Your task to perform on an android device: Search for "logitech g pro" on target.com, select the first entry, add it to the cart, then select checkout. Image 0: 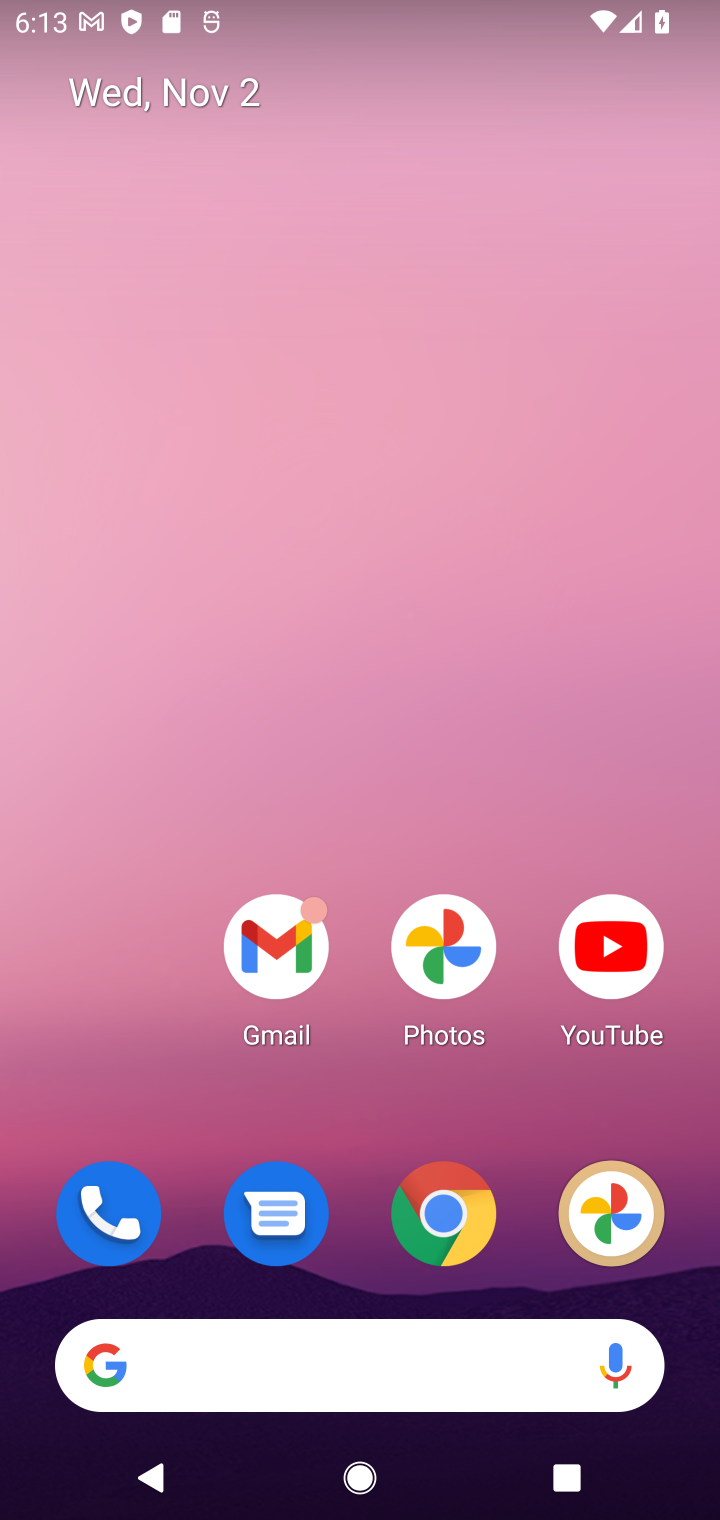
Step 0: click (445, 1233)
Your task to perform on an android device: Search for "logitech g pro" on target.com, select the first entry, add it to the cart, then select checkout. Image 1: 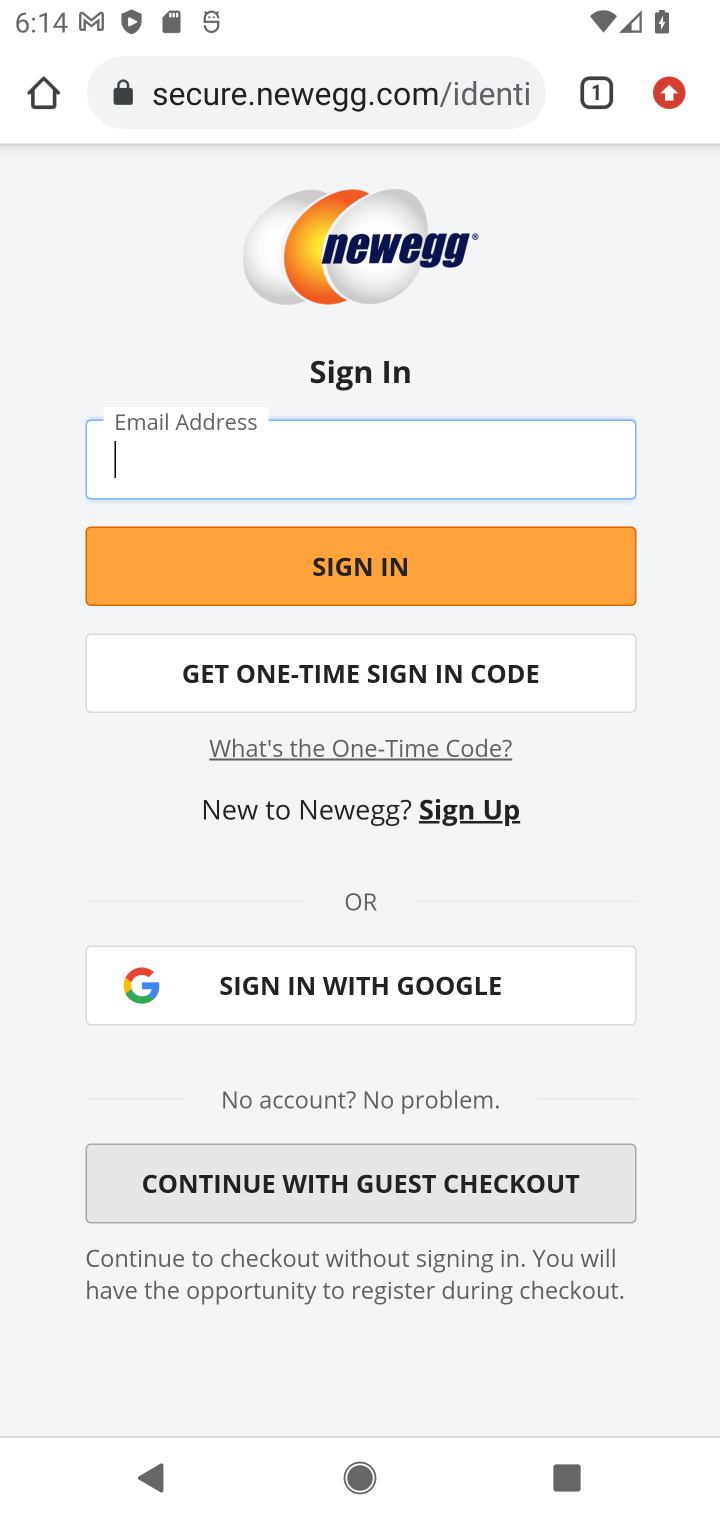
Step 1: click (369, 50)
Your task to perform on an android device: Search for "logitech g pro" on target.com, select the first entry, add it to the cart, then select checkout. Image 2: 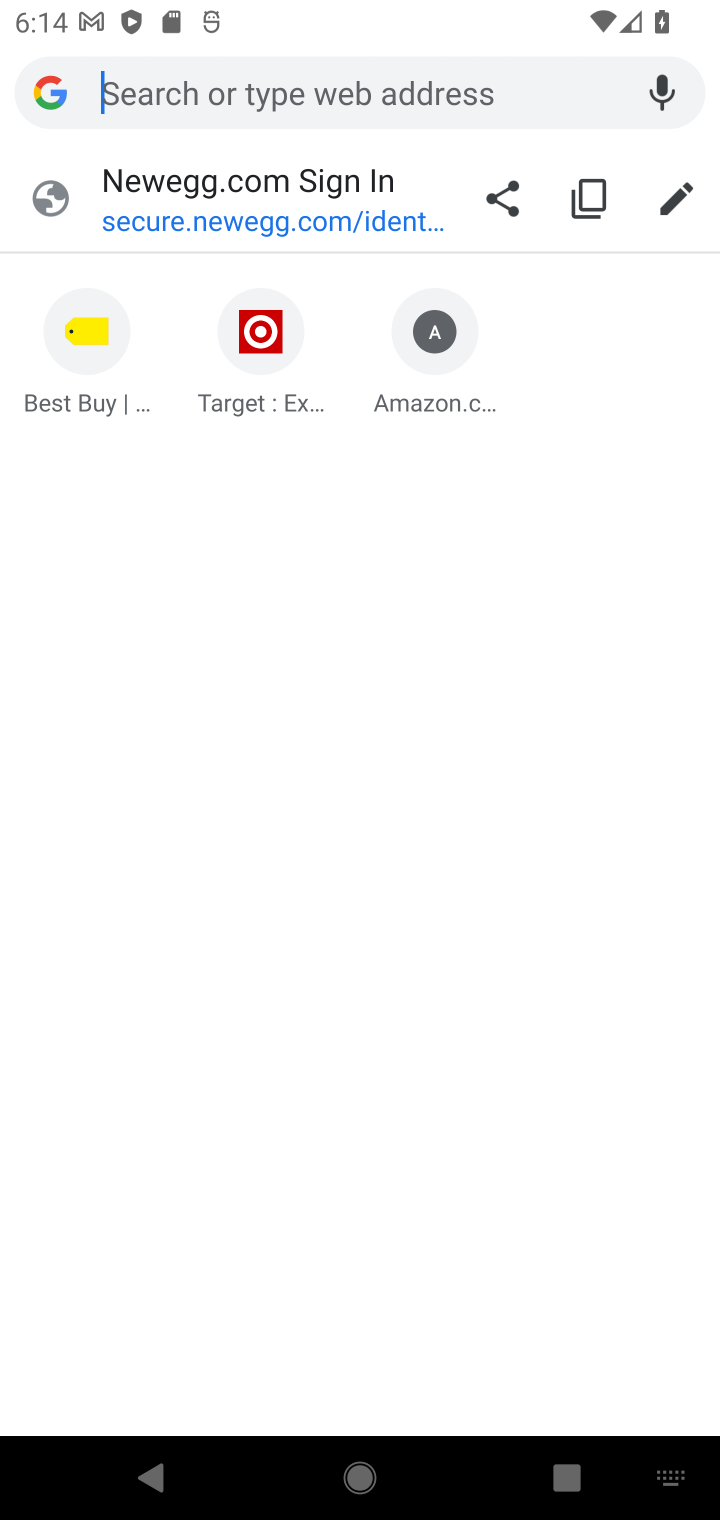
Step 2: type "target.com"
Your task to perform on an android device: Search for "logitech g pro" on target.com, select the first entry, add it to the cart, then select checkout. Image 3: 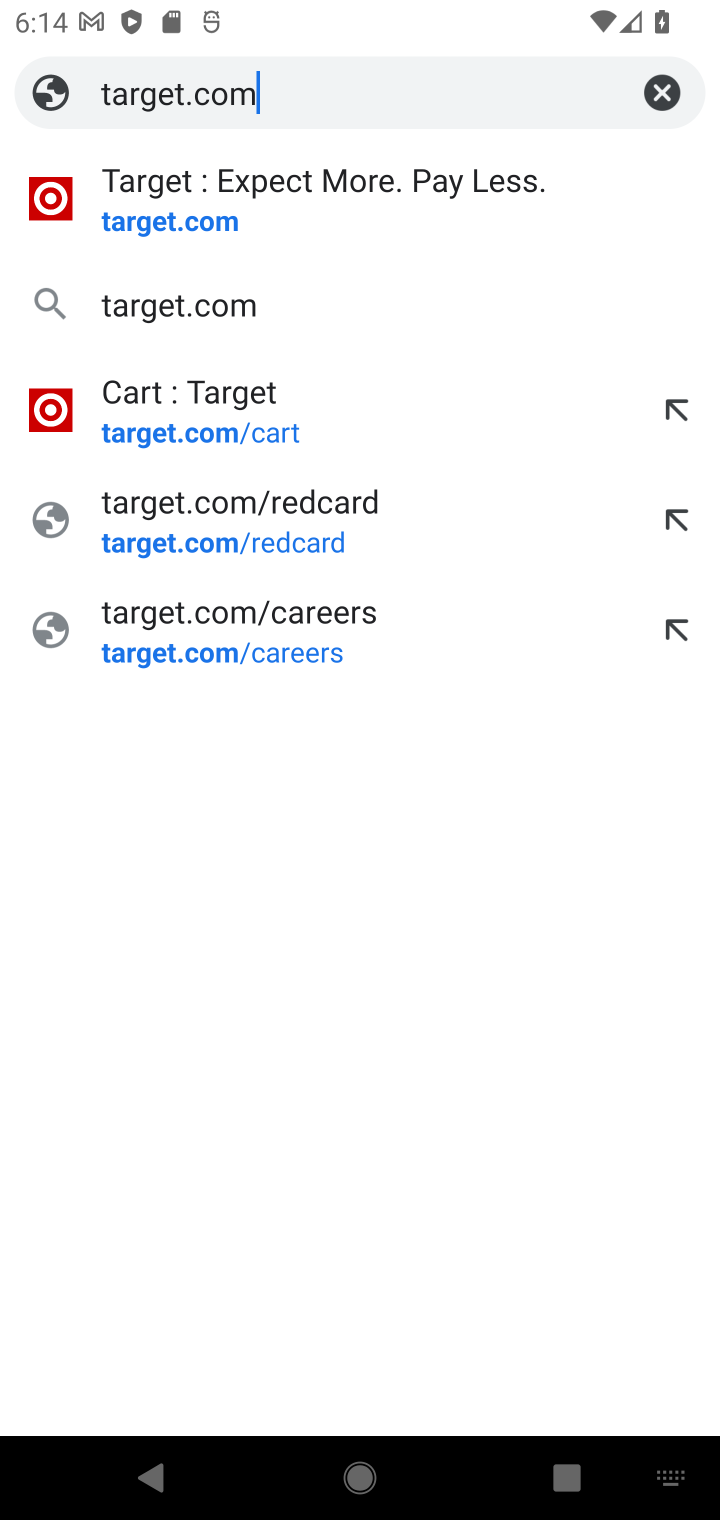
Step 3: click (178, 184)
Your task to perform on an android device: Search for "logitech g pro" on target.com, select the first entry, add it to the cart, then select checkout. Image 4: 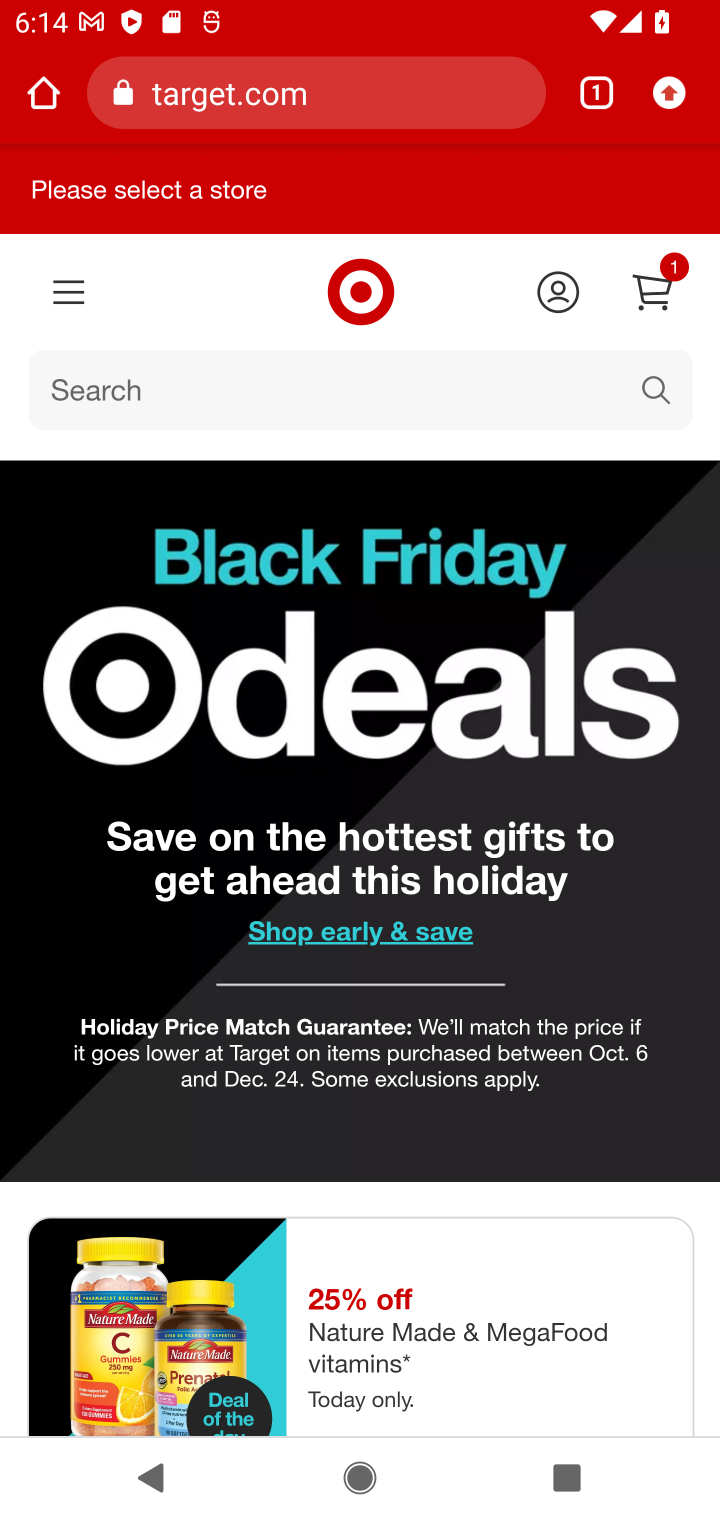
Step 4: click (116, 387)
Your task to perform on an android device: Search for "logitech g pro" on target.com, select the first entry, add it to the cart, then select checkout. Image 5: 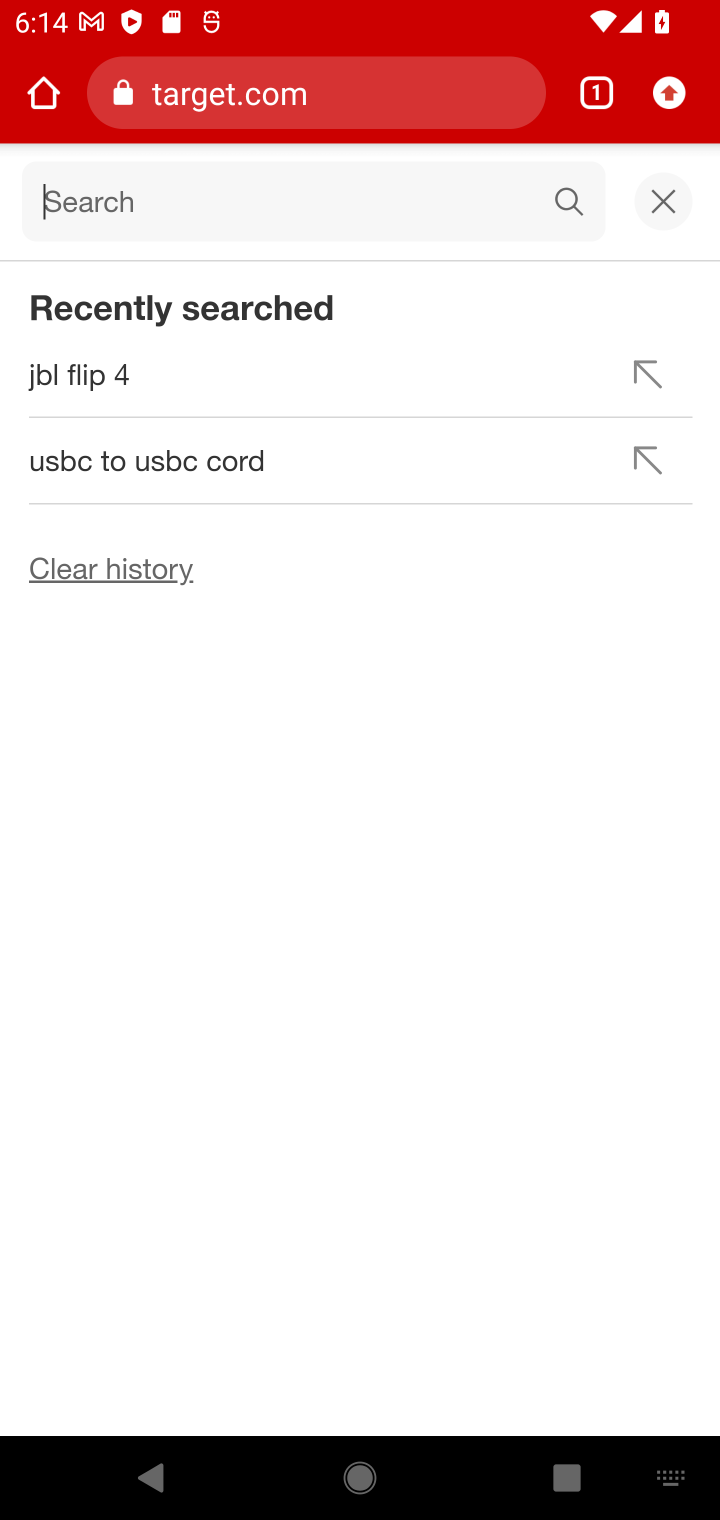
Step 5: type "logitech g pro"
Your task to perform on an android device: Search for "logitech g pro" on target.com, select the first entry, add it to the cart, then select checkout. Image 6: 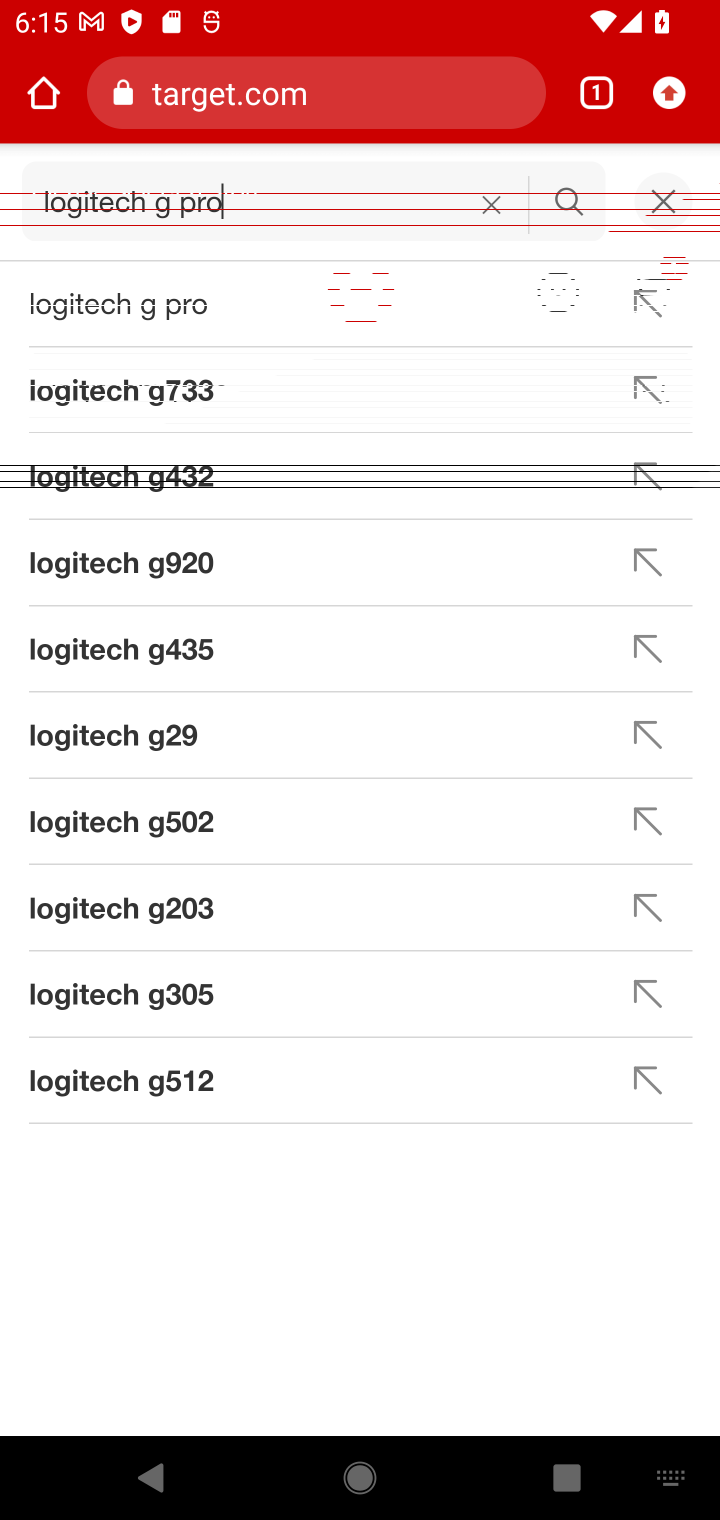
Step 6: click (131, 302)
Your task to perform on an android device: Search for "logitech g pro" on target.com, select the first entry, add it to the cart, then select checkout. Image 7: 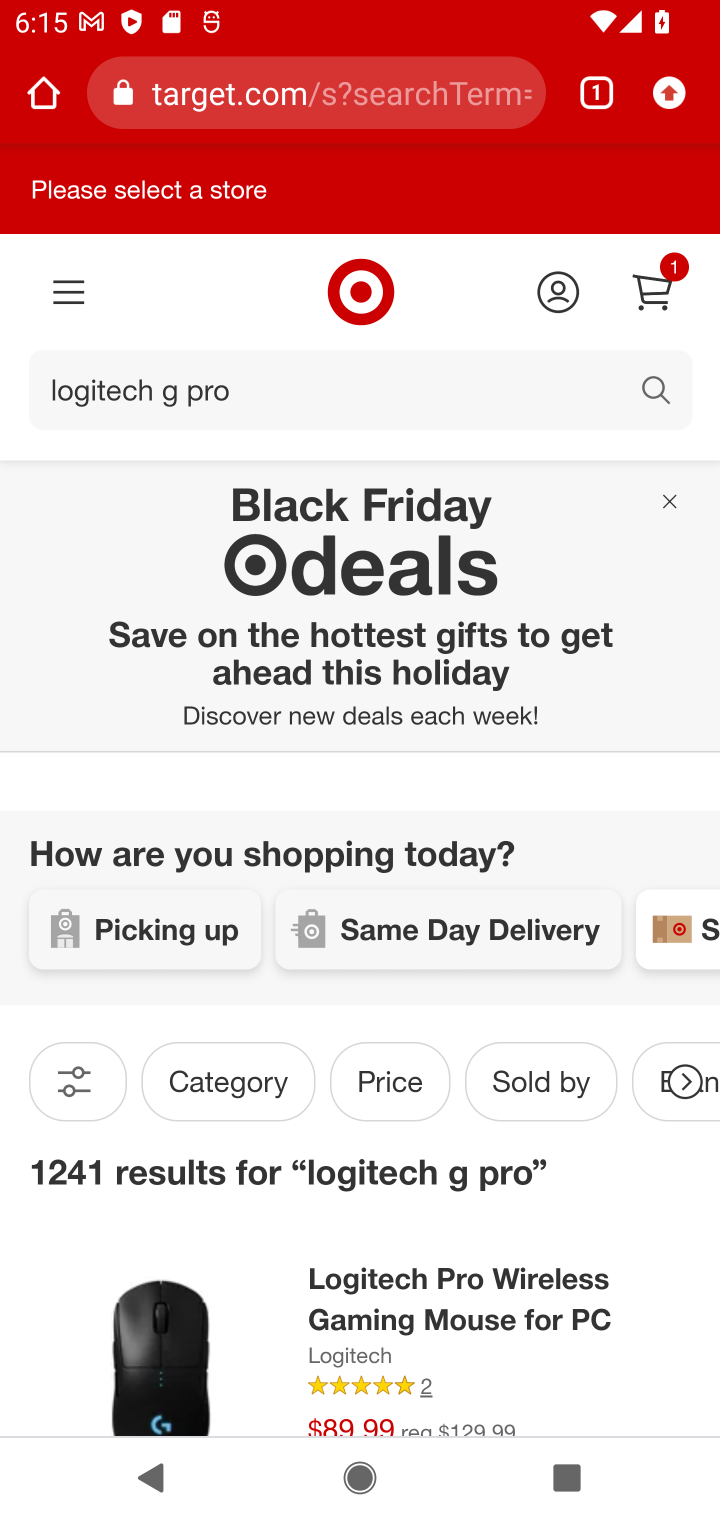
Step 7: drag from (423, 916) to (433, 574)
Your task to perform on an android device: Search for "logitech g pro" on target.com, select the first entry, add it to the cart, then select checkout. Image 8: 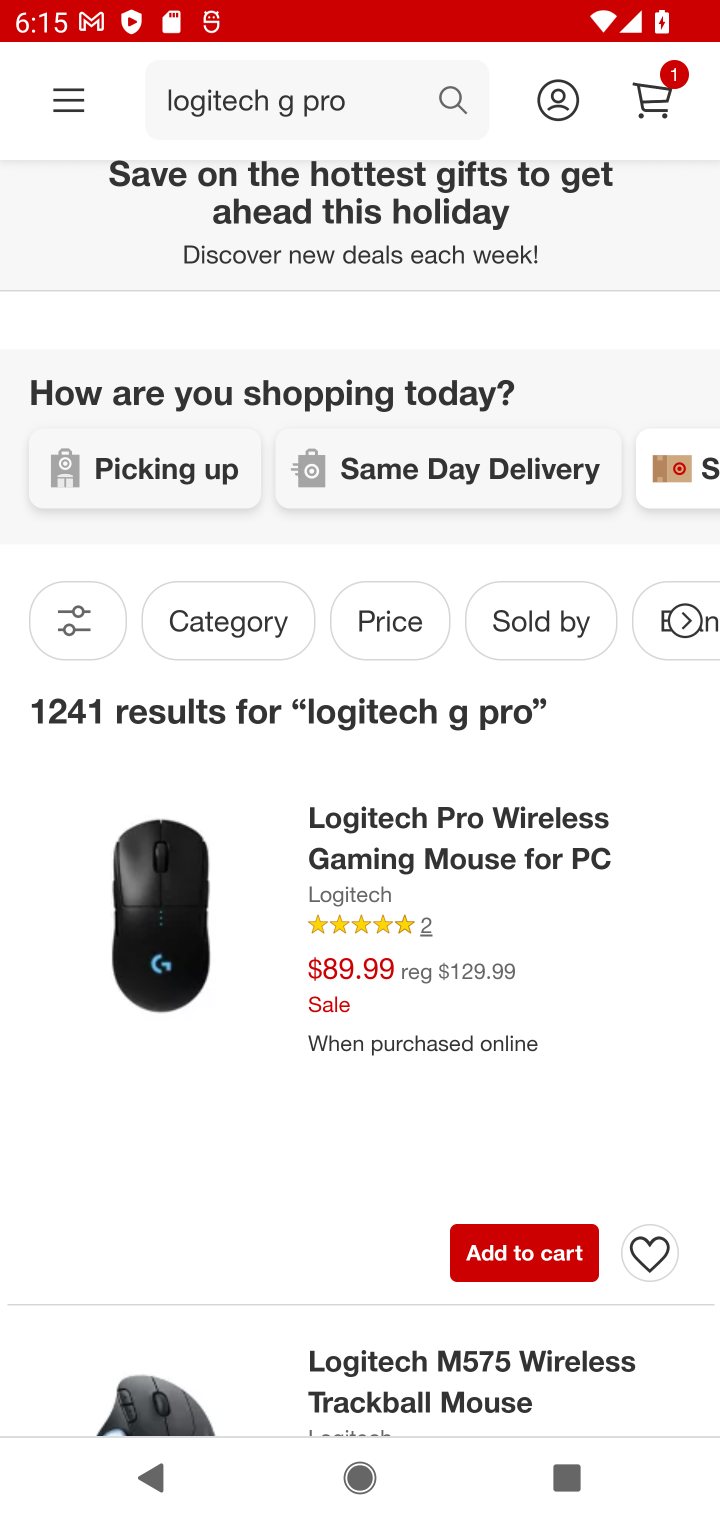
Step 8: drag from (330, 1283) to (361, 624)
Your task to perform on an android device: Search for "logitech g pro" on target.com, select the first entry, add it to the cart, then select checkout. Image 9: 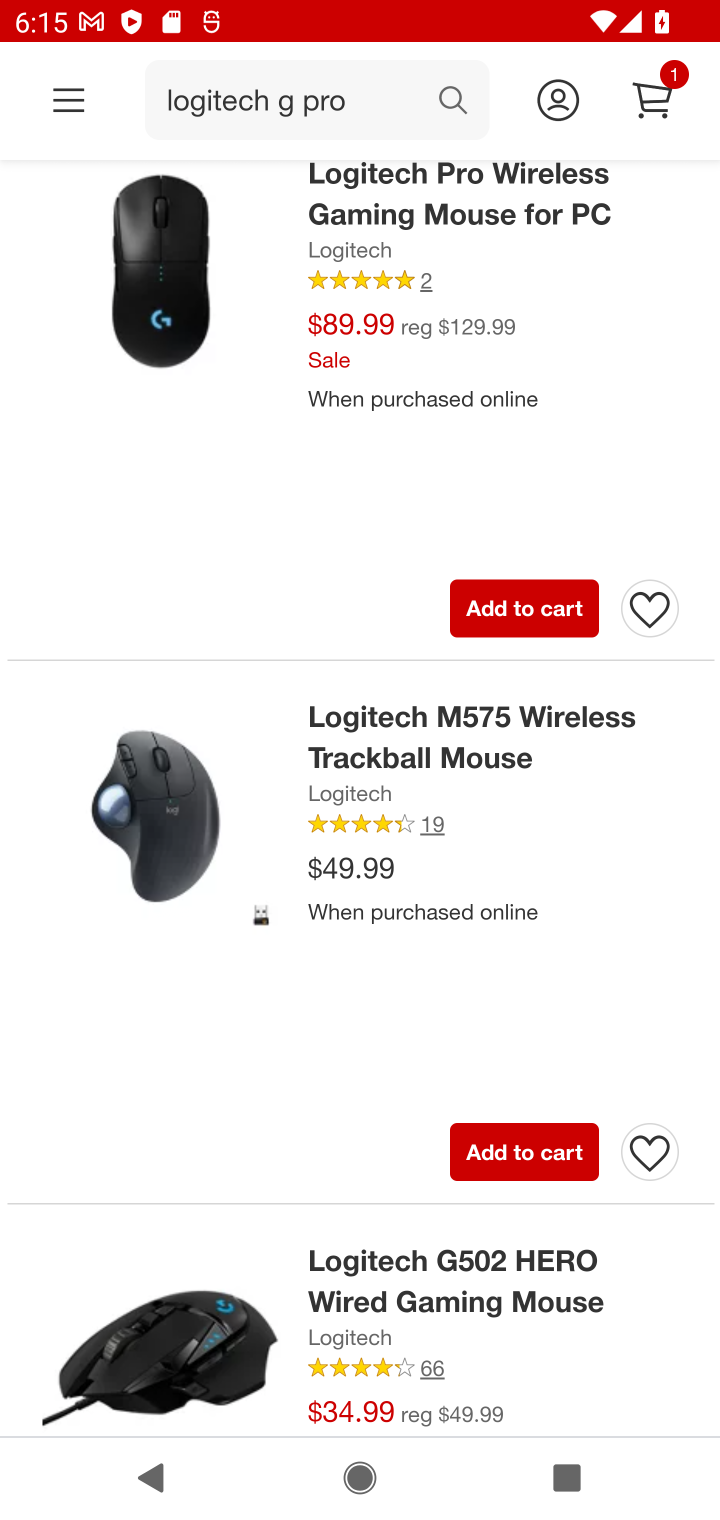
Step 9: drag from (320, 1154) to (319, 436)
Your task to perform on an android device: Search for "logitech g pro" on target.com, select the first entry, add it to the cart, then select checkout. Image 10: 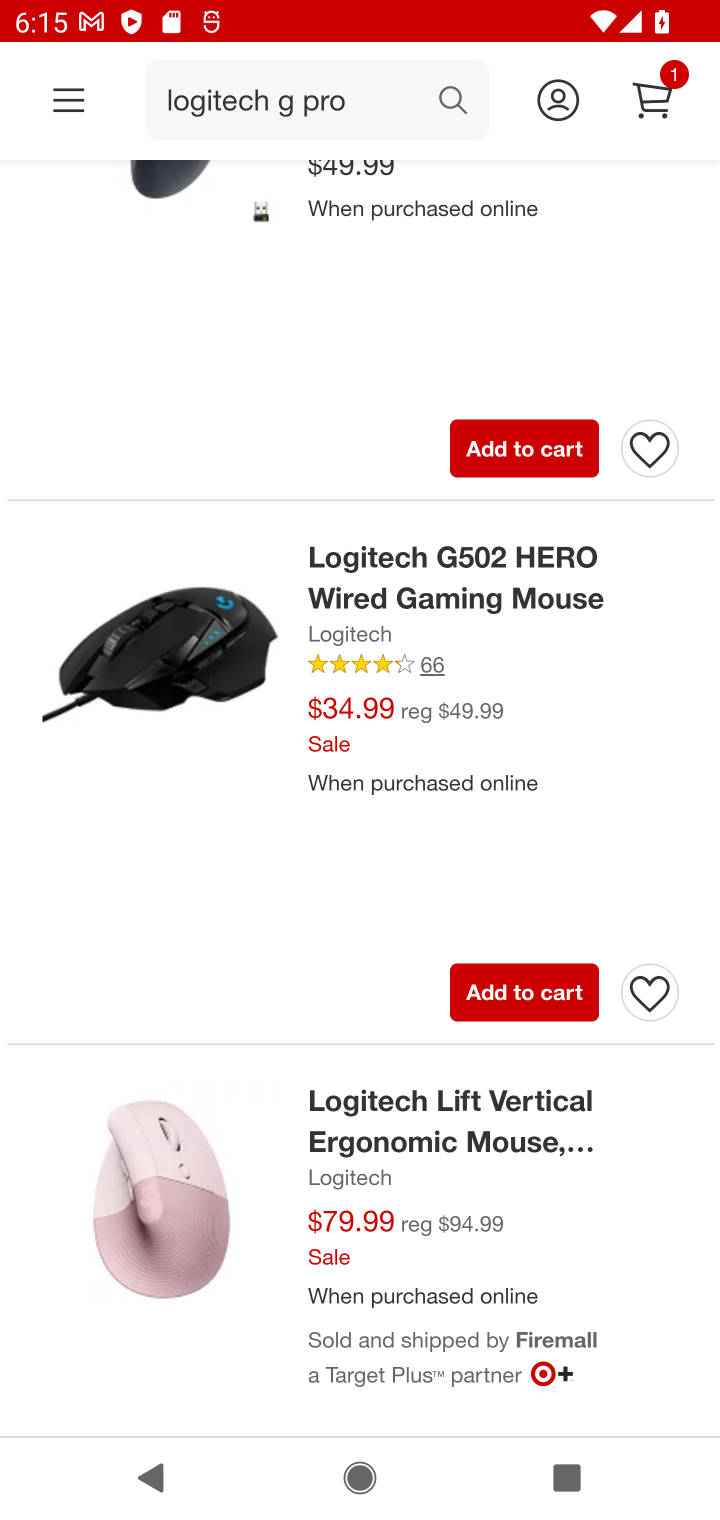
Step 10: drag from (276, 1269) to (344, 594)
Your task to perform on an android device: Search for "logitech g pro" on target.com, select the first entry, add it to the cart, then select checkout. Image 11: 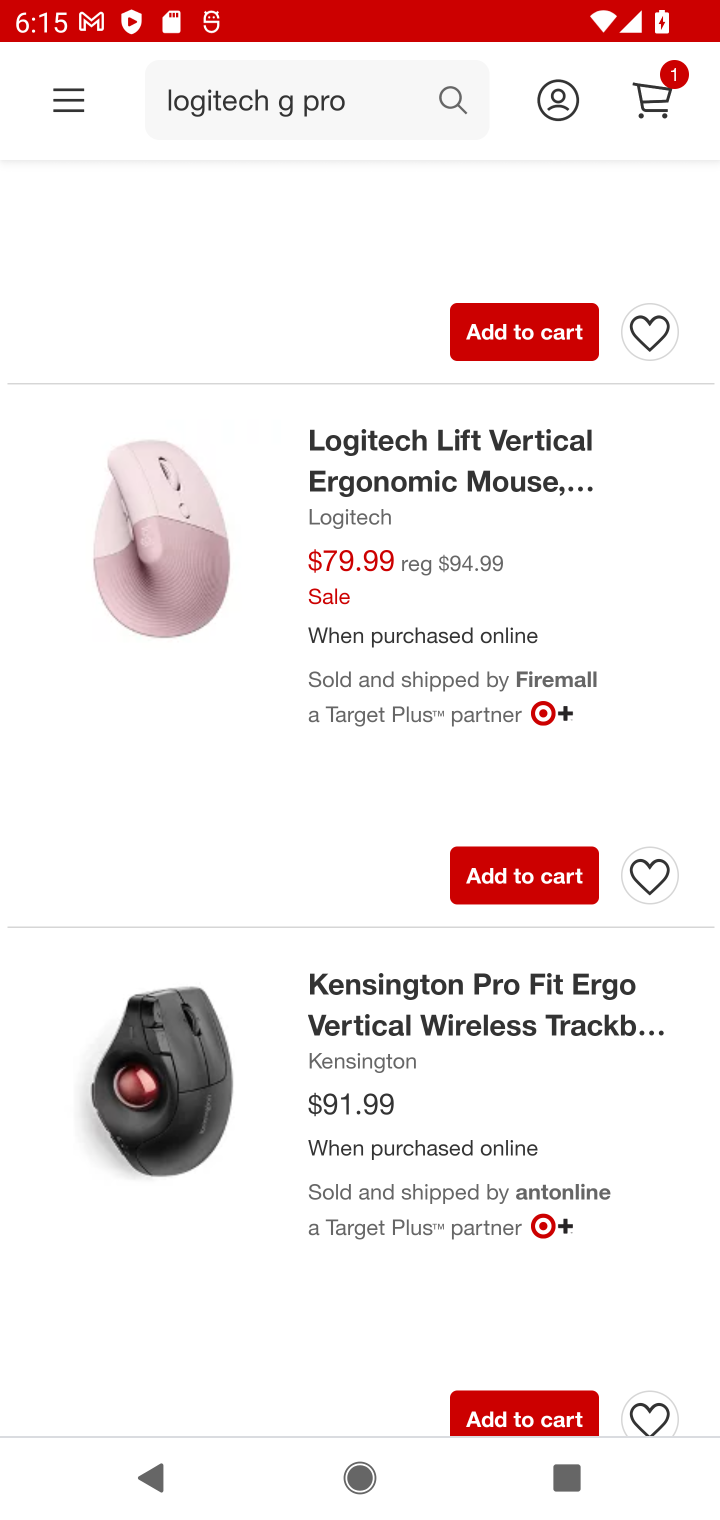
Step 11: drag from (282, 1097) to (393, 257)
Your task to perform on an android device: Search for "logitech g pro" on target.com, select the first entry, add it to the cart, then select checkout. Image 12: 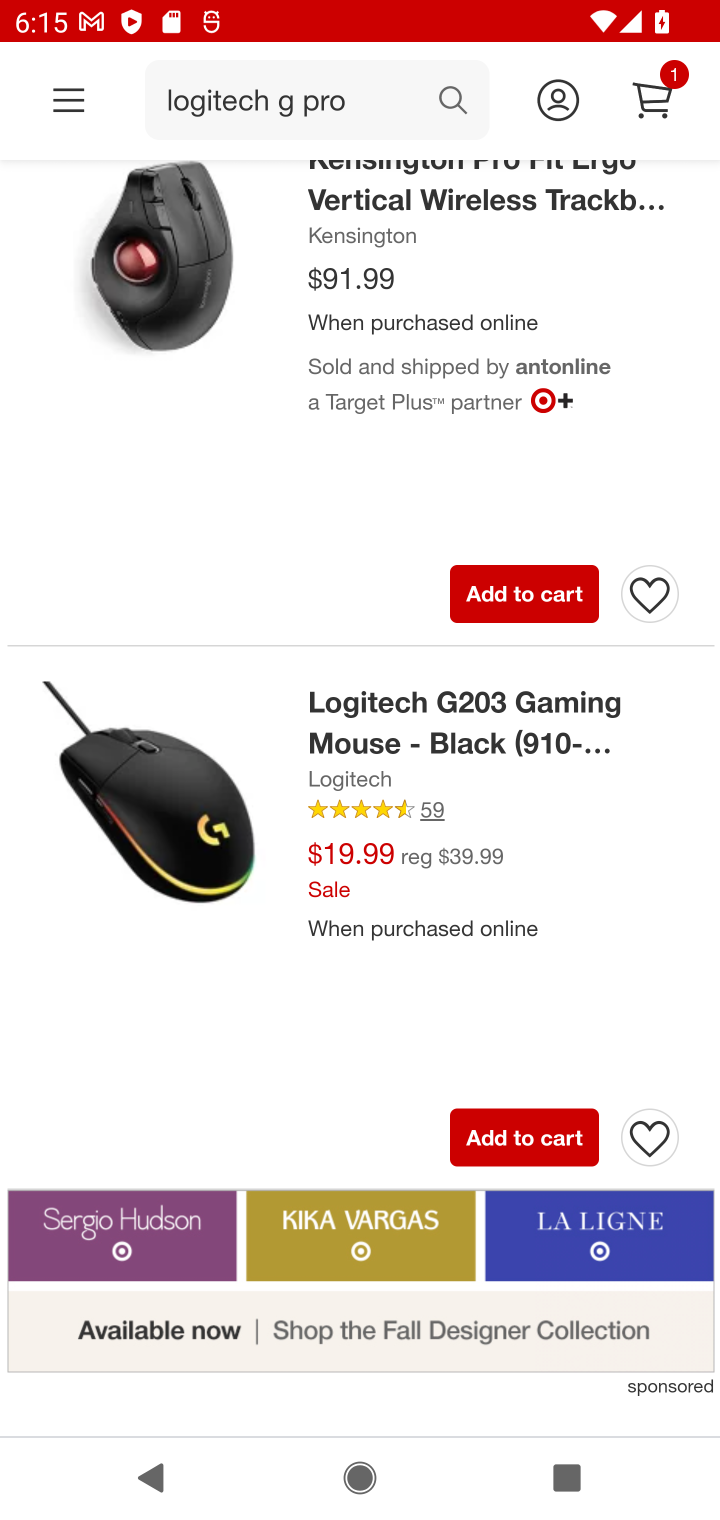
Step 12: drag from (298, 651) to (283, 1117)
Your task to perform on an android device: Search for "logitech g pro" on target.com, select the first entry, add it to the cart, then select checkout. Image 13: 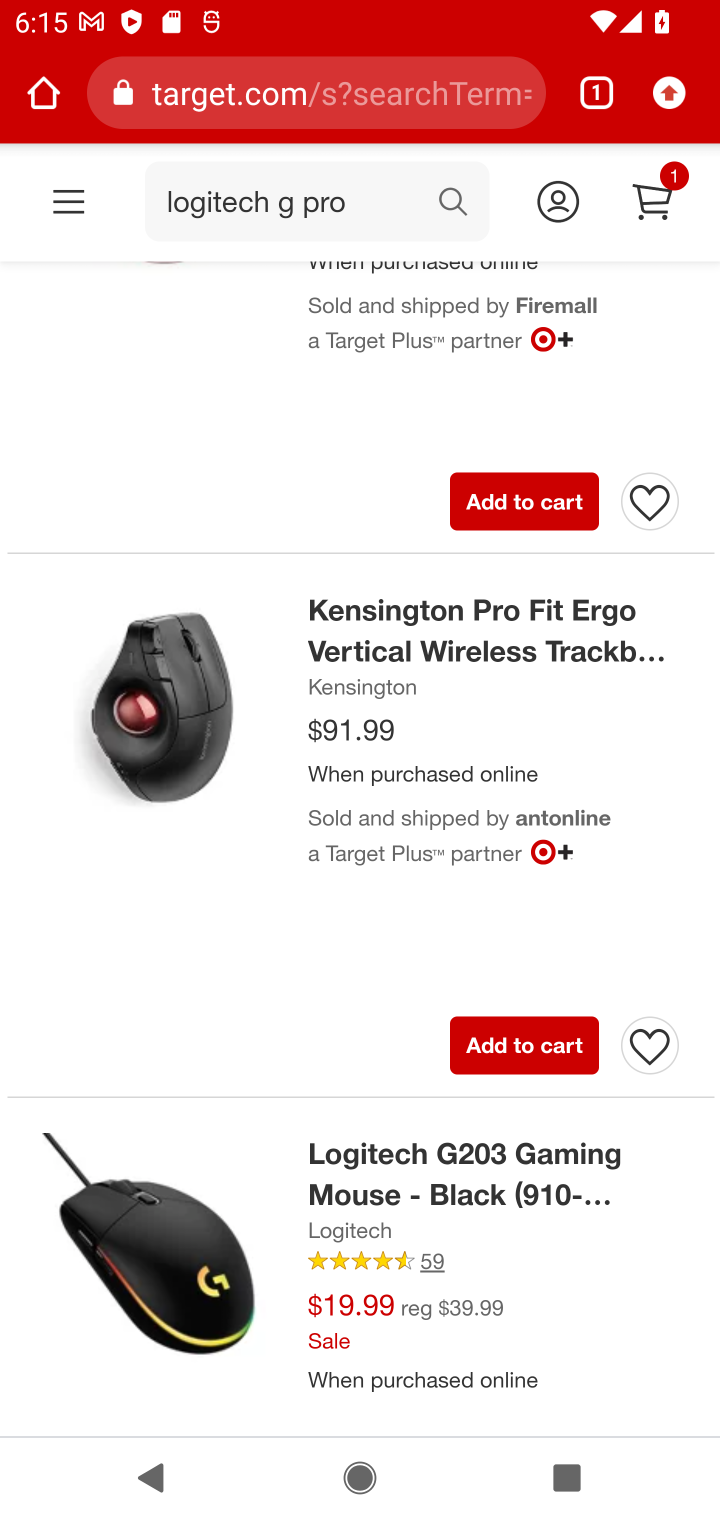
Step 13: drag from (285, 511) to (303, 1148)
Your task to perform on an android device: Search for "logitech g pro" on target.com, select the first entry, add it to the cart, then select checkout. Image 14: 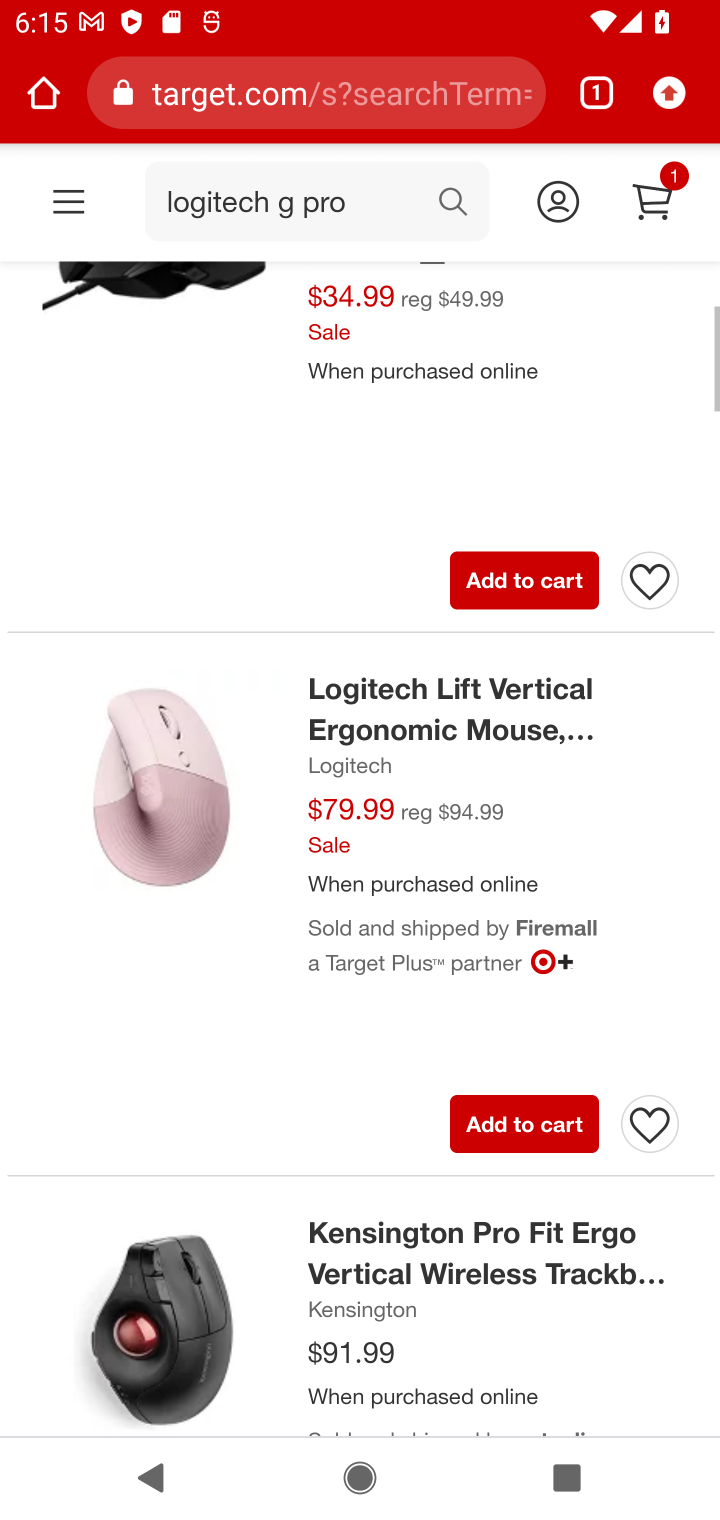
Step 14: drag from (303, 742) to (306, 1007)
Your task to perform on an android device: Search for "logitech g pro" on target.com, select the first entry, add it to the cart, then select checkout. Image 15: 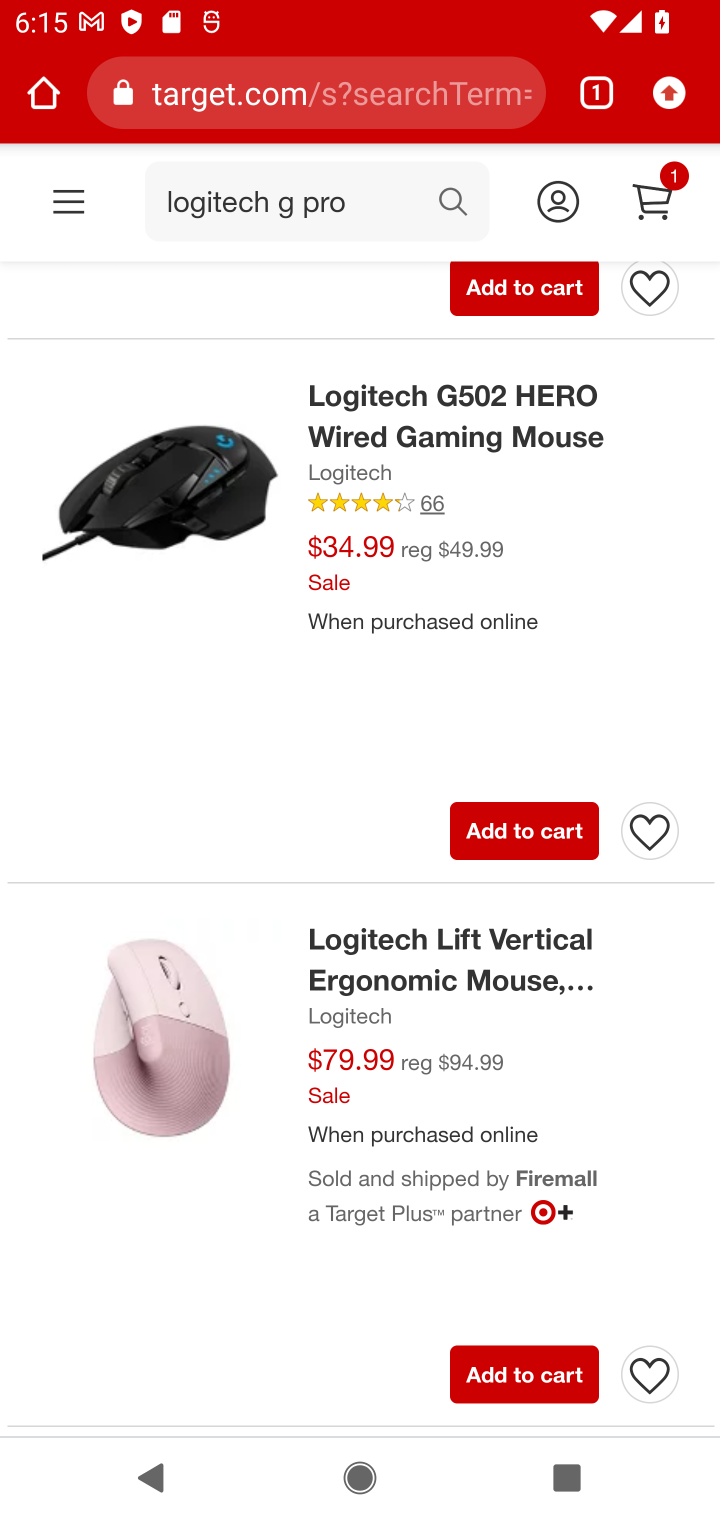
Step 15: drag from (273, 466) to (282, 1012)
Your task to perform on an android device: Search for "logitech g pro" on target.com, select the first entry, add it to the cart, then select checkout. Image 16: 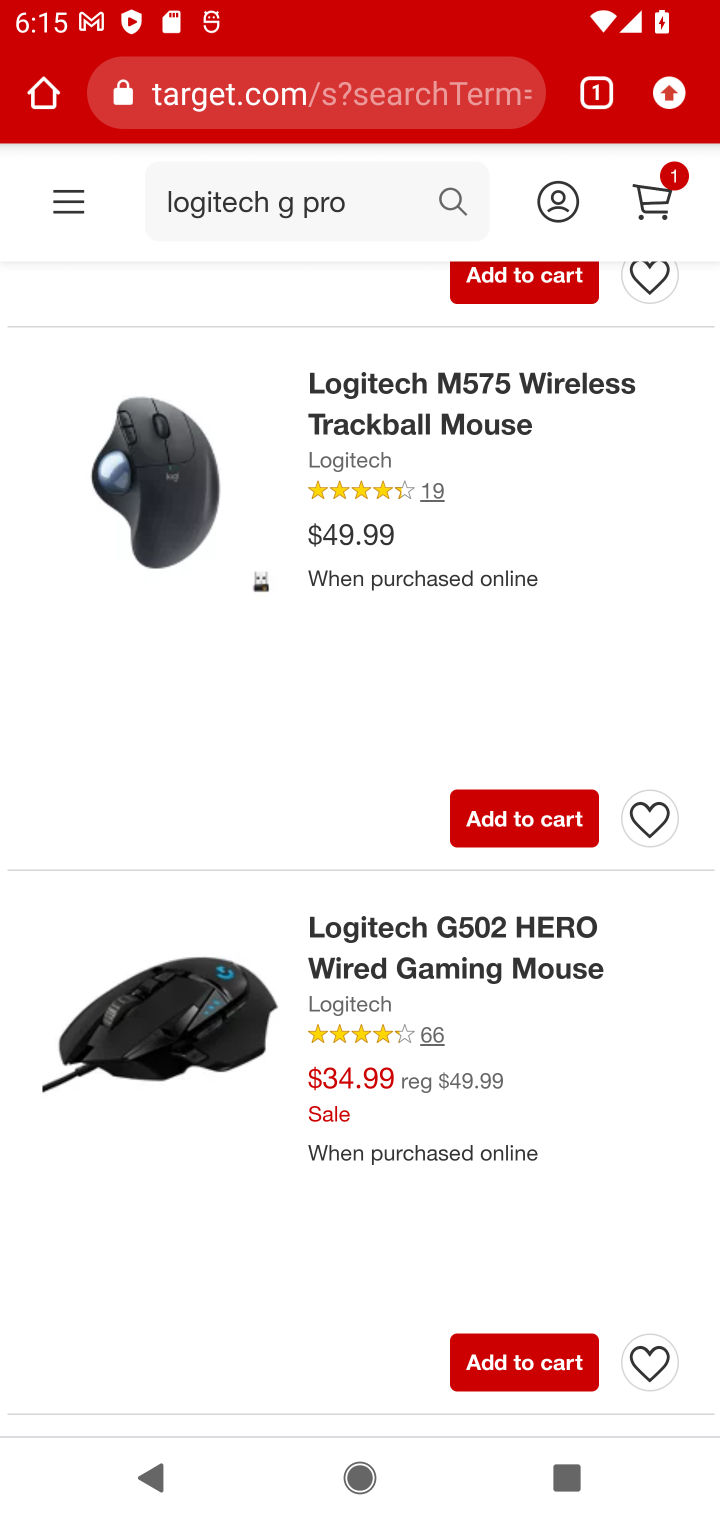
Step 16: drag from (269, 440) to (287, 995)
Your task to perform on an android device: Search for "logitech g pro" on target.com, select the first entry, add it to the cart, then select checkout. Image 17: 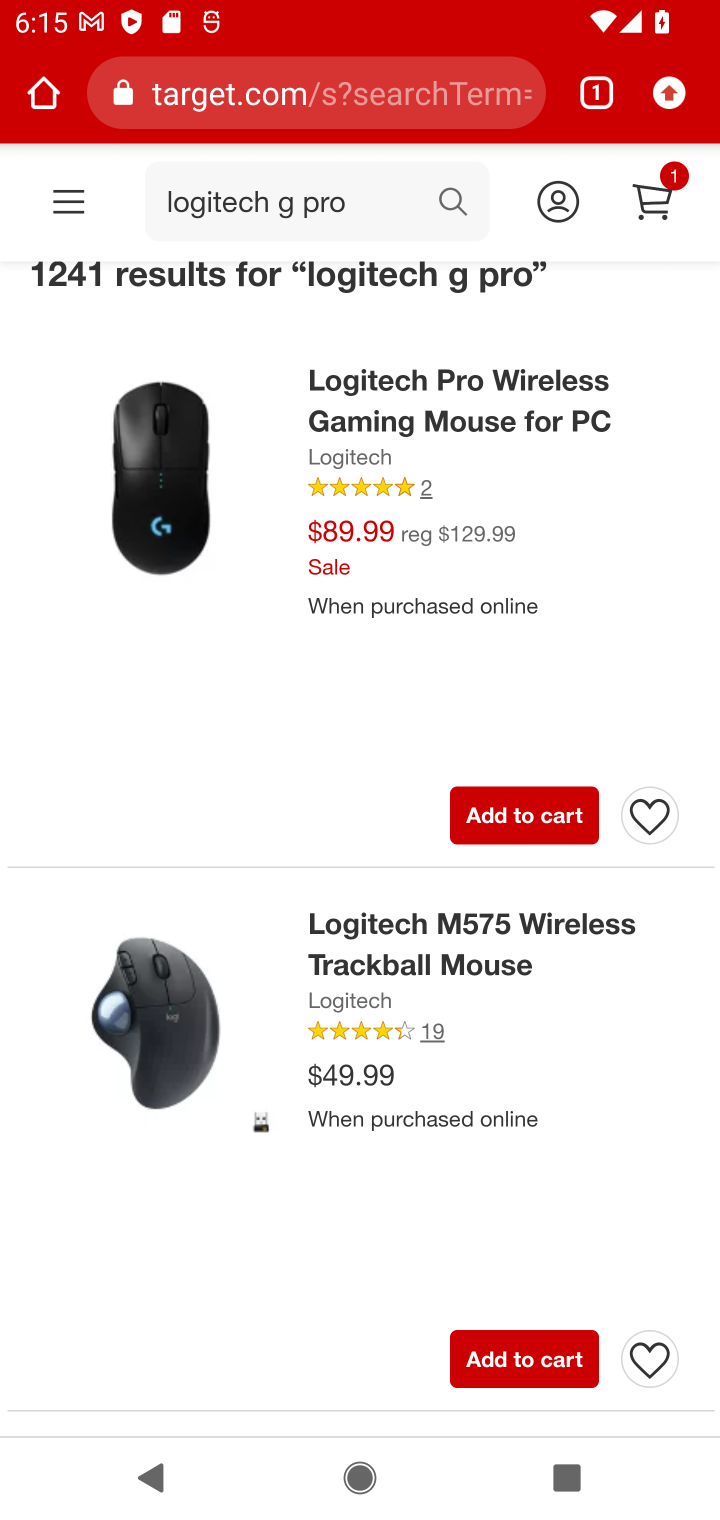
Step 17: drag from (261, 494) to (277, 992)
Your task to perform on an android device: Search for "logitech g pro" on target.com, select the first entry, add it to the cart, then select checkout. Image 18: 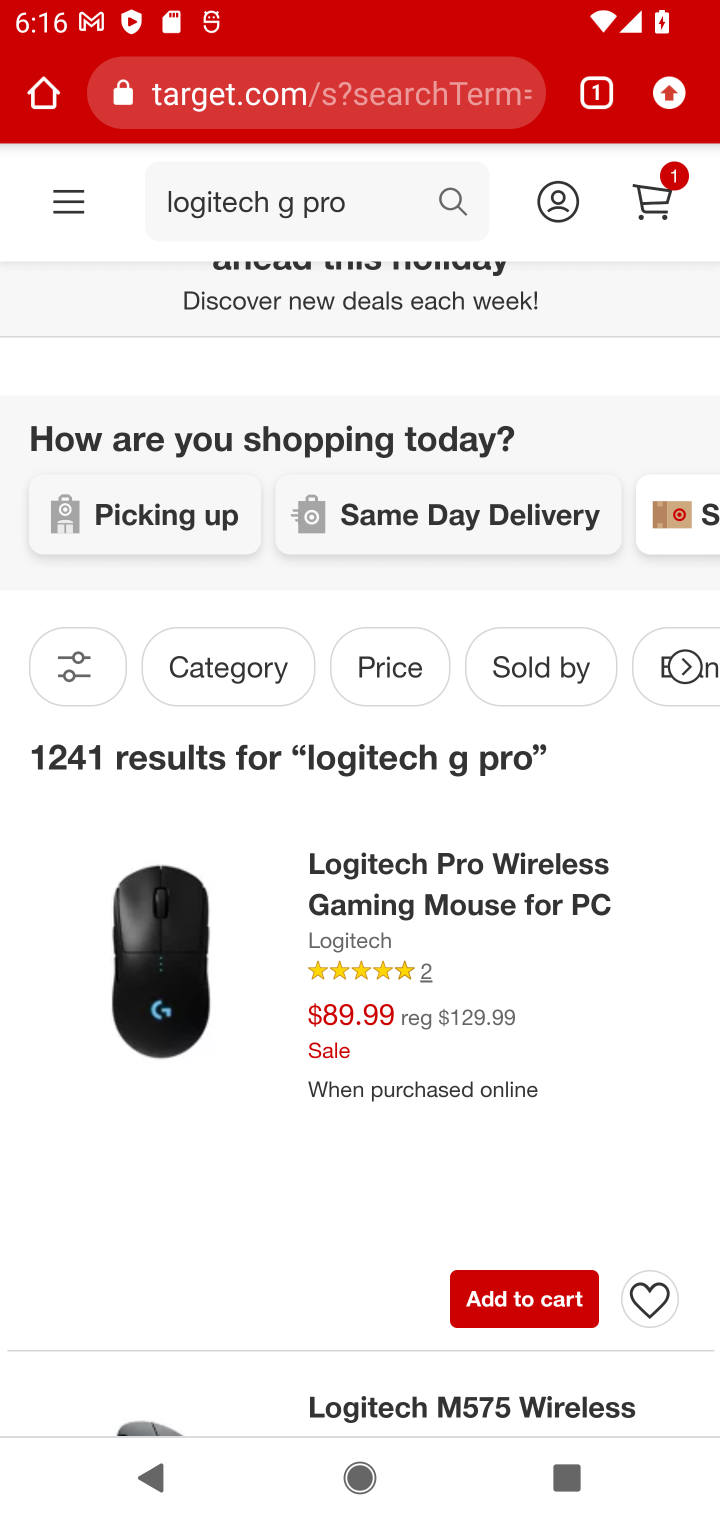
Step 18: click (517, 1289)
Your task to perform on an android device: Search for "logitech g pro" on target.com, select the first entry, add it to the cart, then select checkout. Image 19: 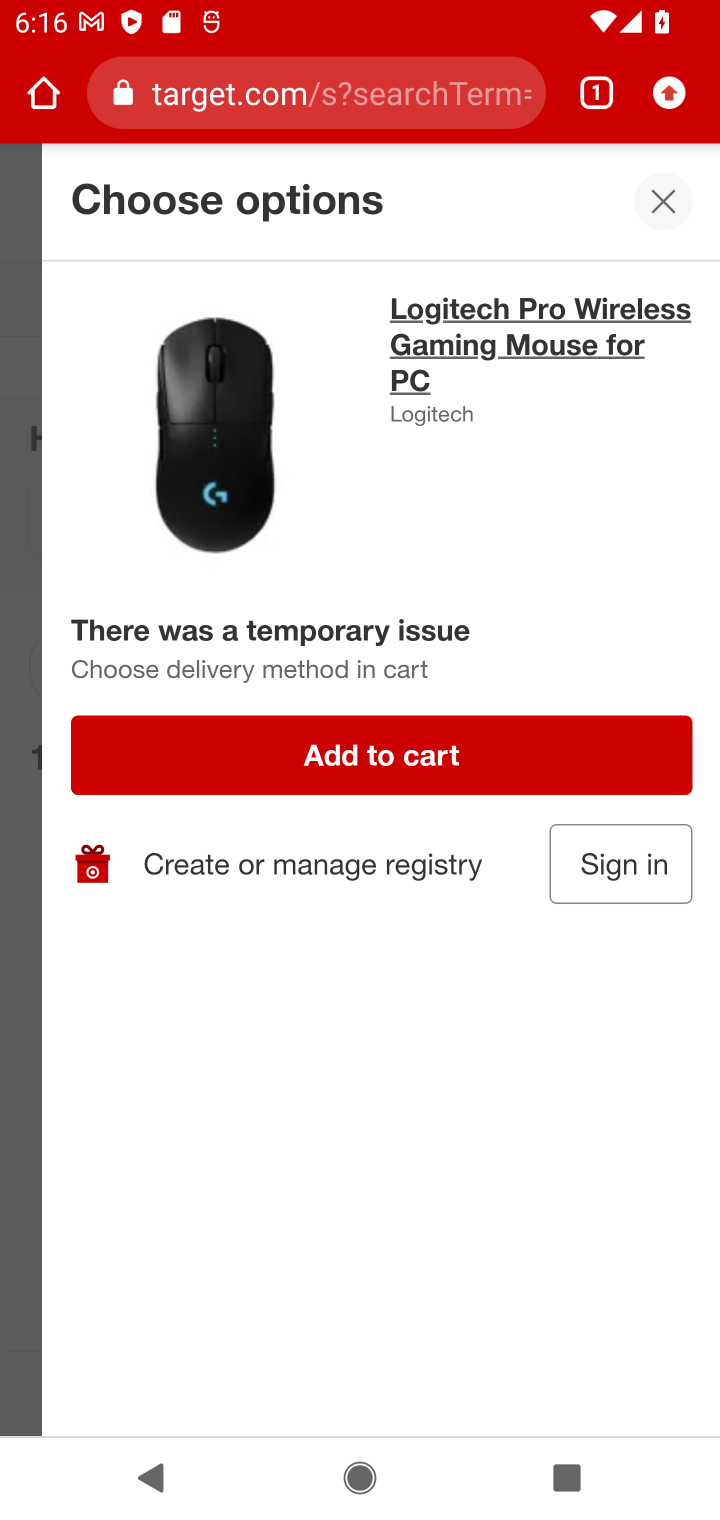
Step 19: click (360, 752)
Your task to perform on an android device: Search for "logitech g pro" on target.com, select the first entry, add it to the cart, then select checkout. Image 20: 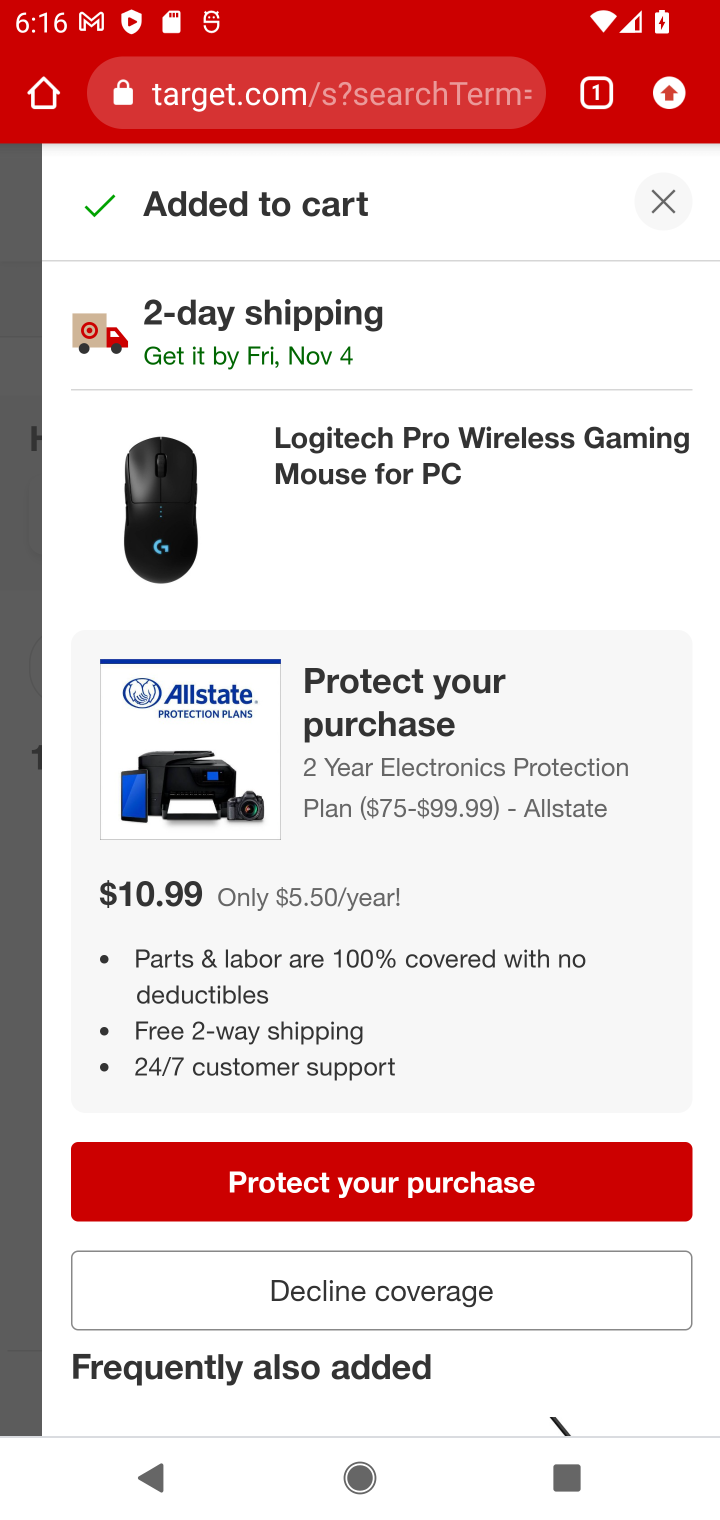
Step 20: click (660, 197)
Your task to perform on an android device: Search for "logitech g pro" on target.com, select the first entry, add it to the cart, then select checkout. Image 21: 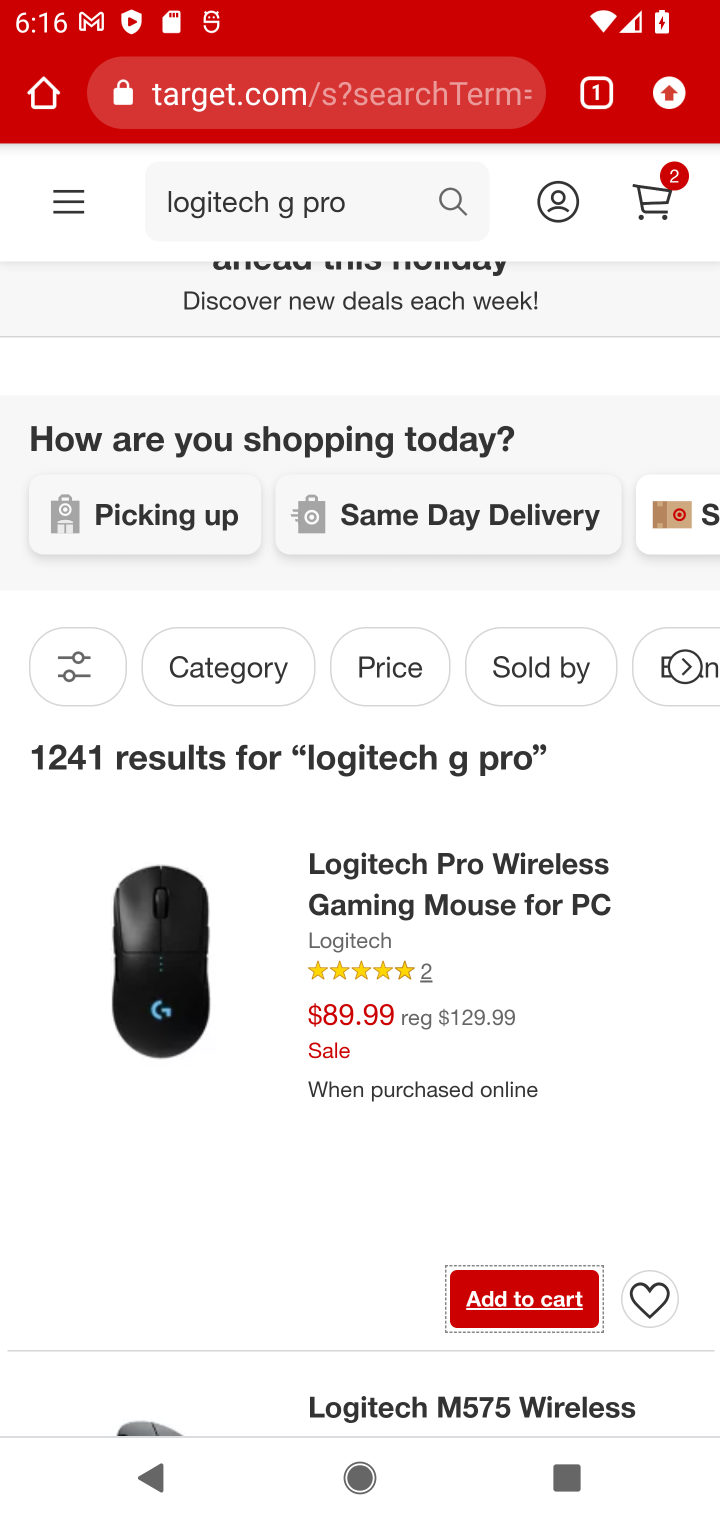
Step 21: click (651, 201)
Your task to perform on an android device: Search for "logitech g pro" on target.com, select the first entry, add it to the cart, then select checkout. Image 22: 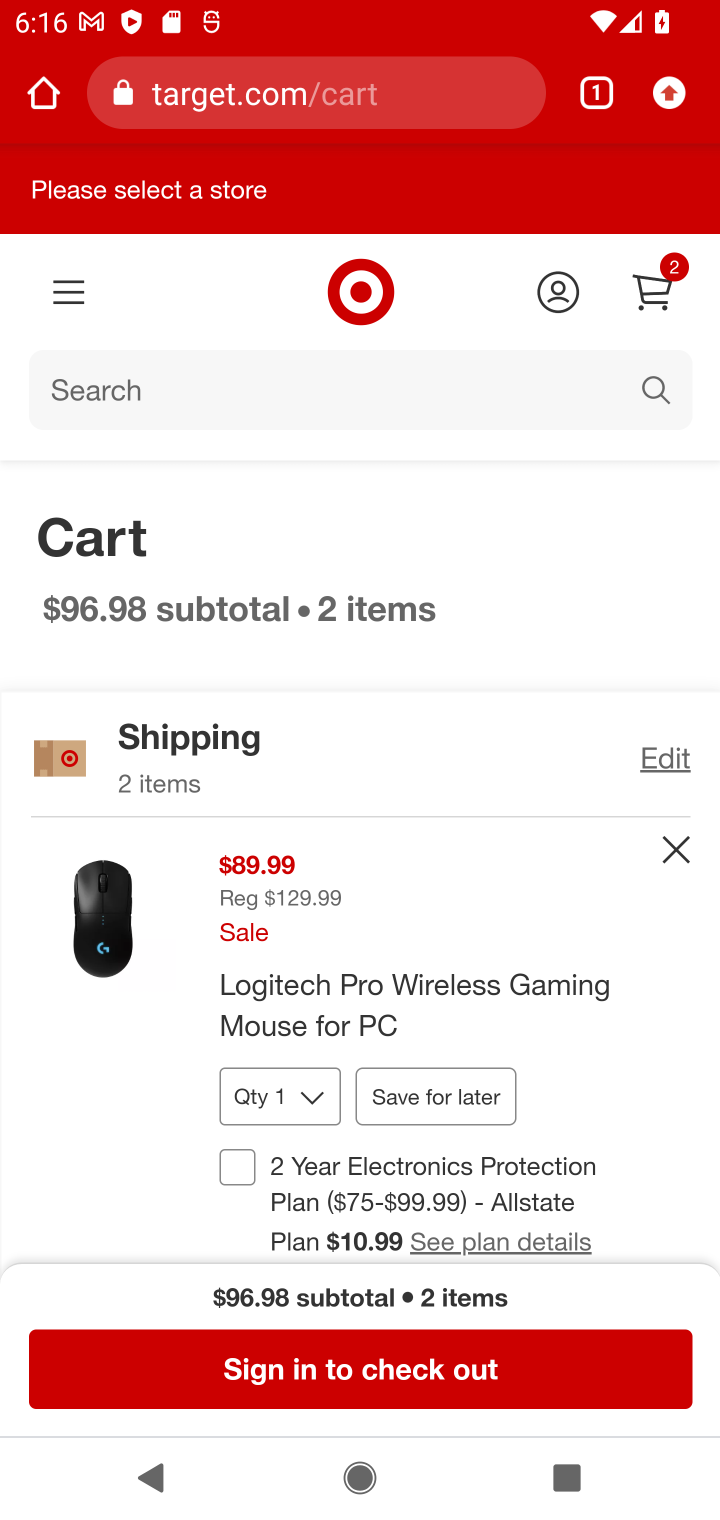
Step 22: click (386, 1369)
Your task to perform on an android device: Search for "logitech g pro" on target.com, select the first entry, add it to the cart, then select checkout. Image 23: 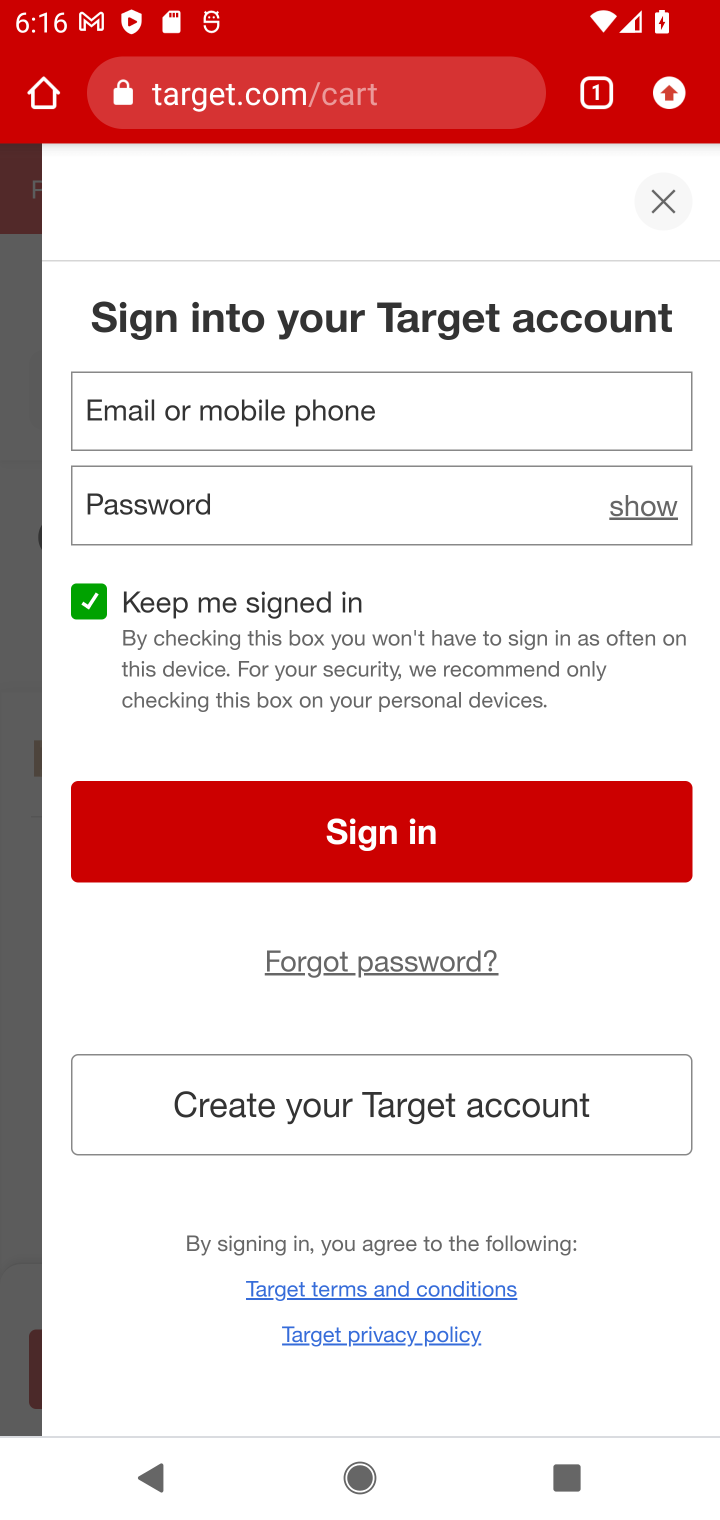
Step 23: task complete